Your task to perform on an android device: Open Google Chrome Image 0: 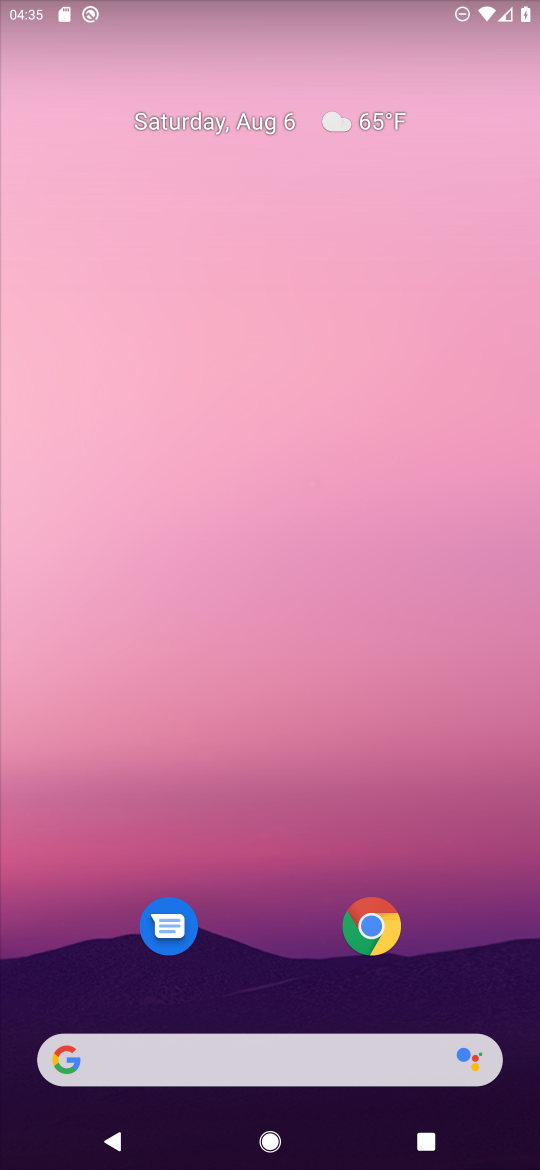
Step 0: click (391, 918)
Your task to perform on an android device: Open Google Chrome Image 1: 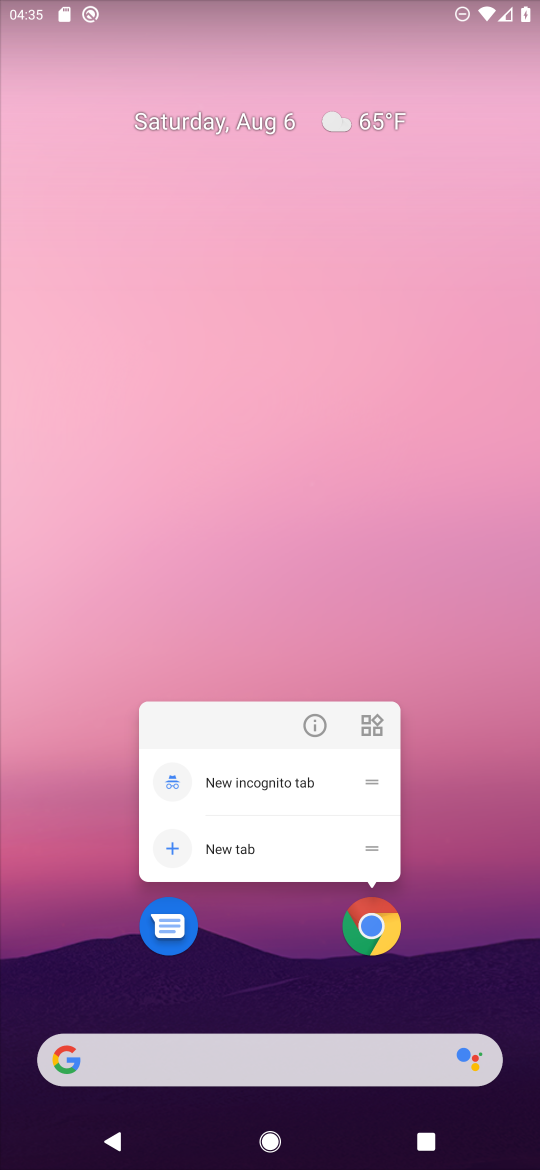
Step 1: click (355, 924)
Your task to perform on an android device: Open Google Chrome Image 2: 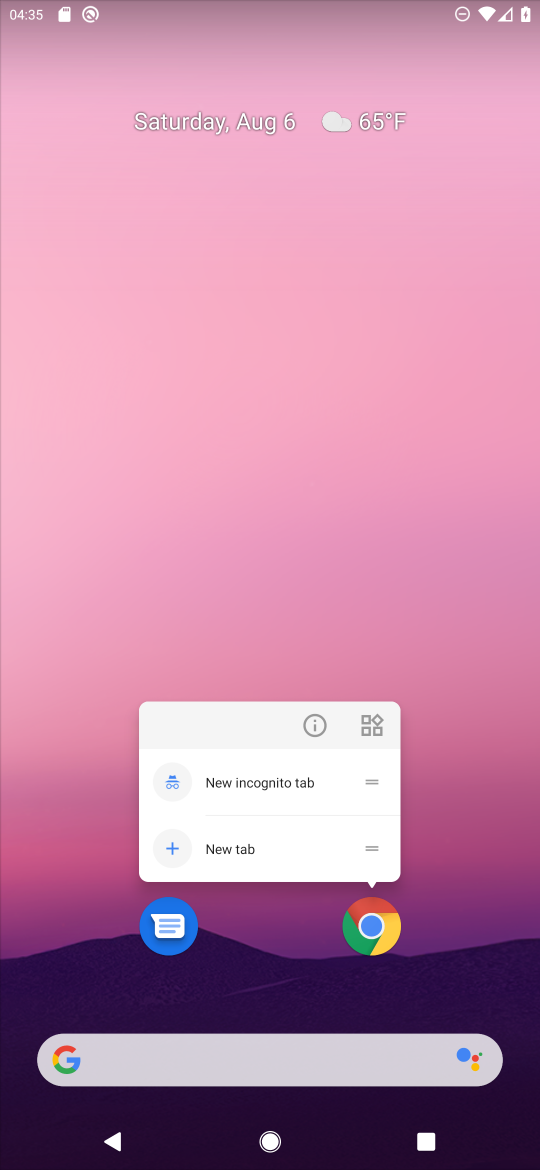
Step 2: click (355, 924)
Your task to perform on an android device: Open Google Chrome Image 3: 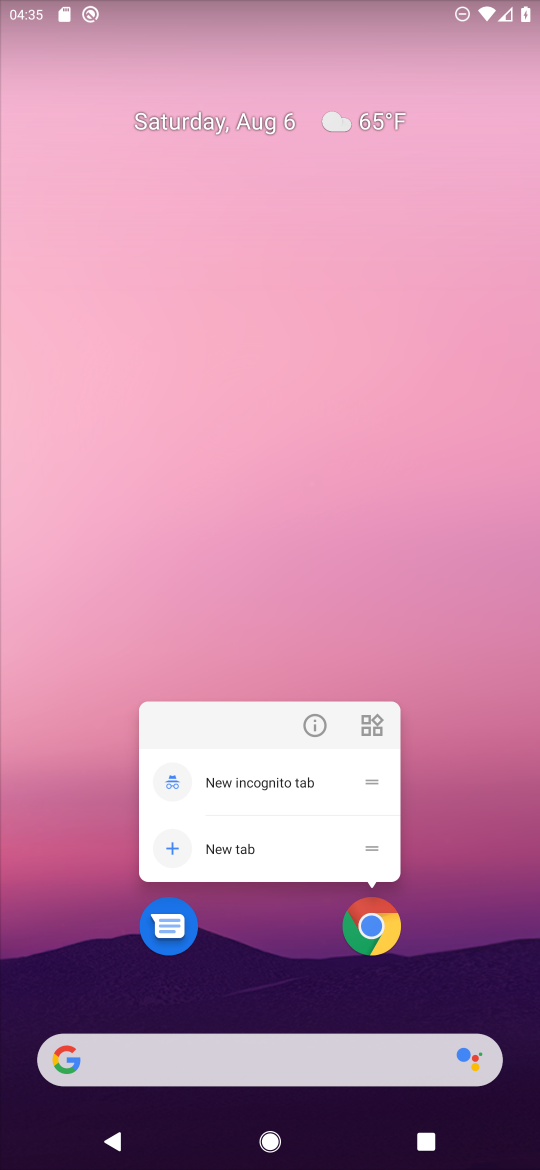
Step 3: click (355, 924)
Your task to perform on an android device: Open Google Chrome Image 4: 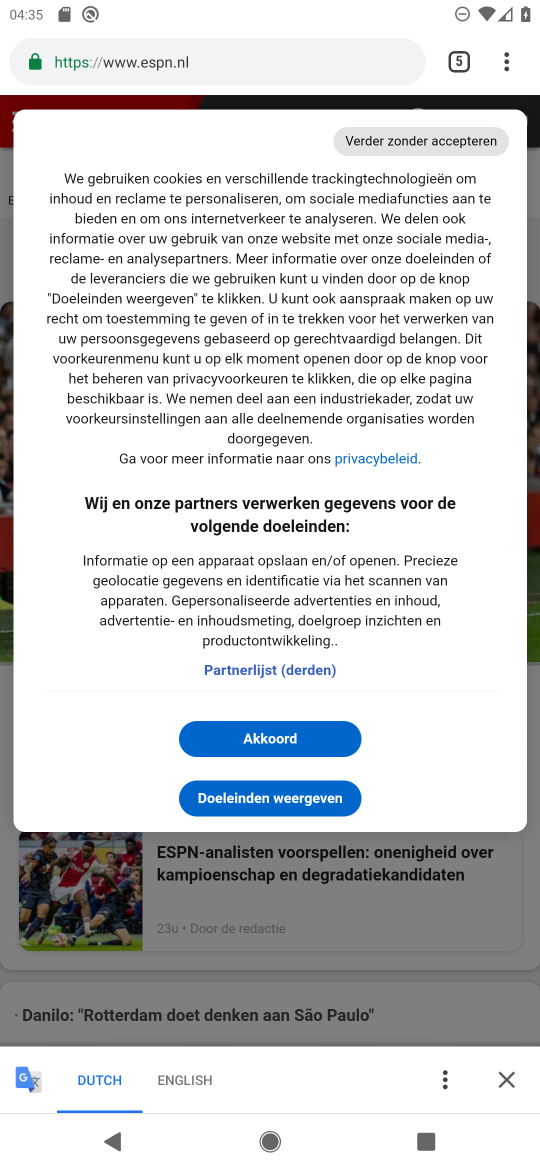
Step 4: task complete